Your task to perform on an android device: check out phone information Image 0: 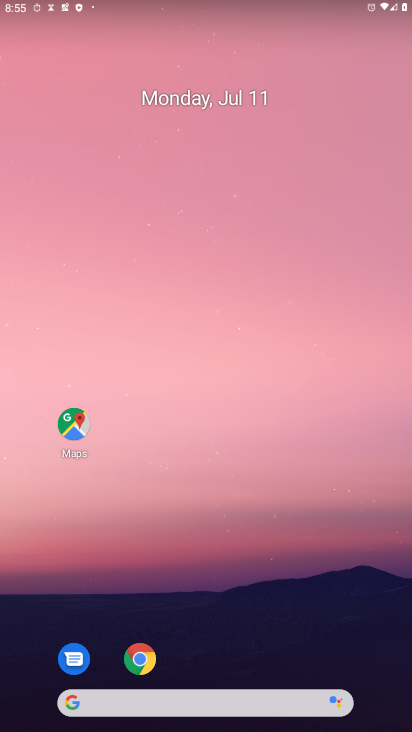
Step 0: drag from (220, 662) to (257, 84)
Your task to perform on an android device: check out phone information Image 1: 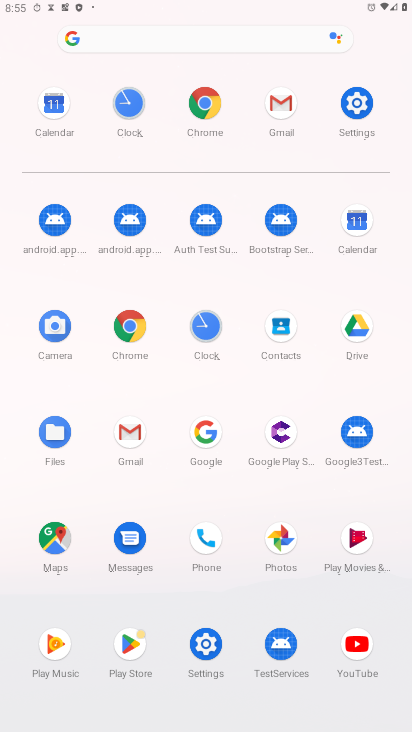
Step 1: click (199, 647)
Your task to perform on an android device: check out phone information Image 2: 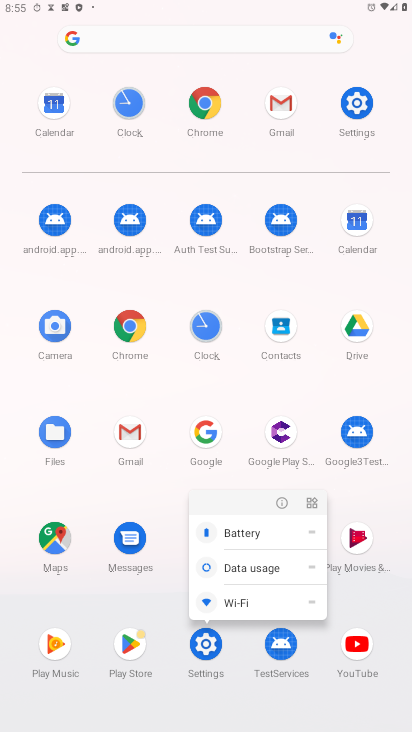
Step 2: click (279, 510)
Your task to perform on an android device: check out phone information Image 3: 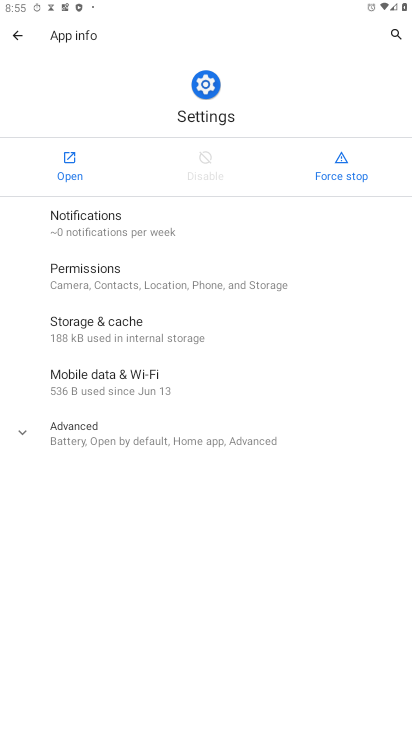
Step 3: click (76, 179)
Your task to perform on an android device: check out phone information Image 4: 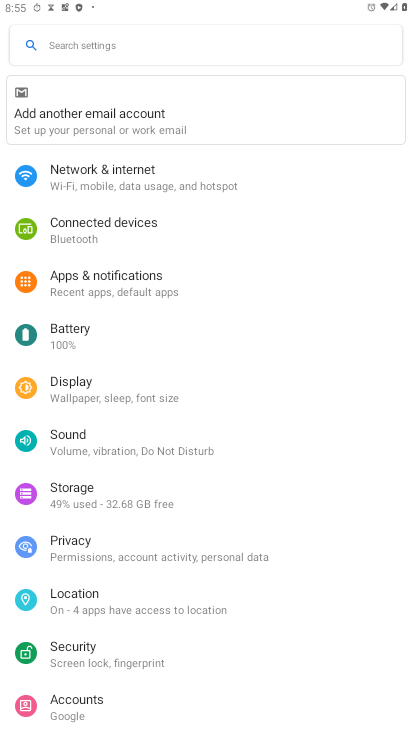
Step 4: drag from (185, 662) to (236, 94)
Your task to perform on an android device: check out phone information Image 5: 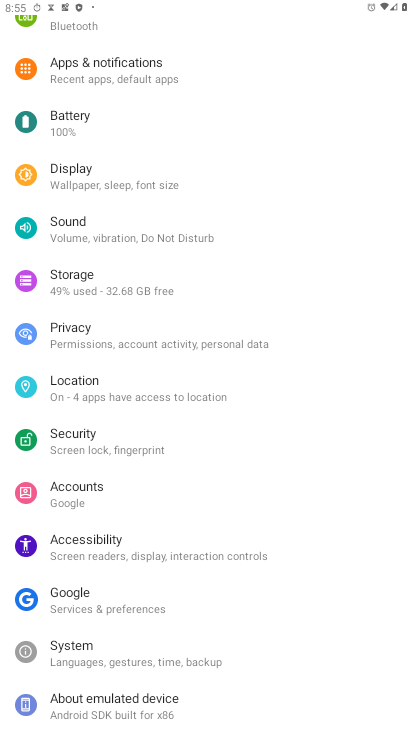
Step 5: click (156, 703)
Your task to perform on an android device: check out phone information Image 6: 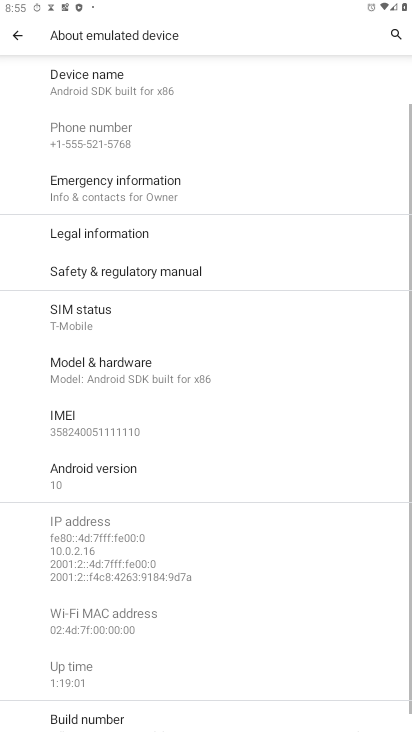
Step 6: drag from (177, 679) to (260, 179)
Your task to perform on an android device: check out phone information Image 7: 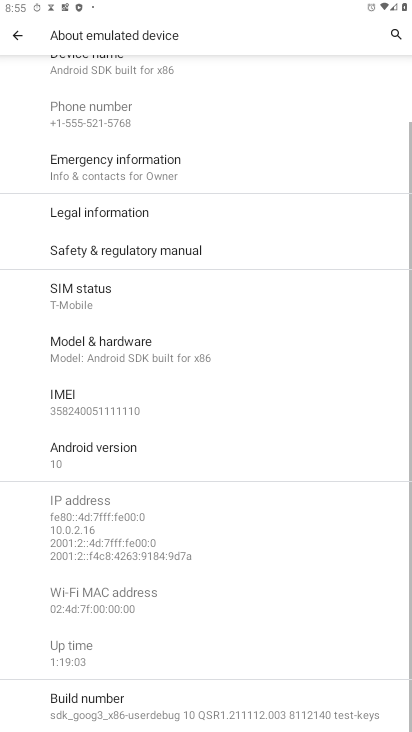
Step 7: drag from (289, 114) to (323, 693)
Your task to perform on an android device: check out phone information Image 8: 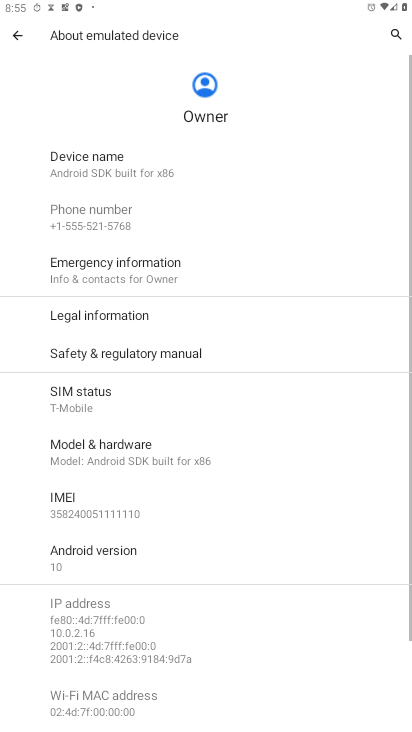
Step 8: drag from (237, 587) to (266, 297)
Your task to perform on an android device: check out phone information Image 9: 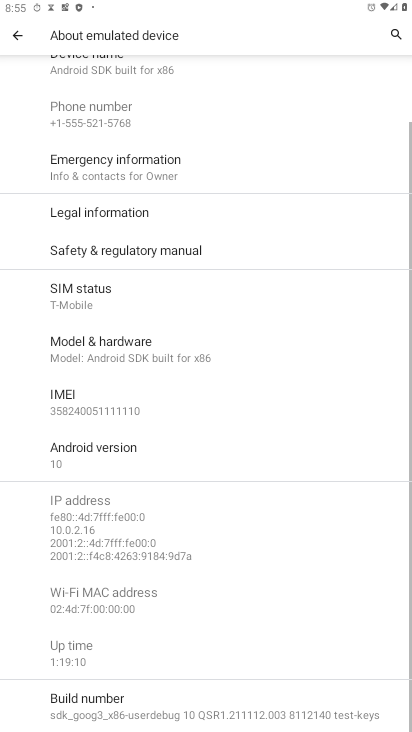
Step 9: click (157, 460)
Your task to perform on an android device: check out phone information Image 10: 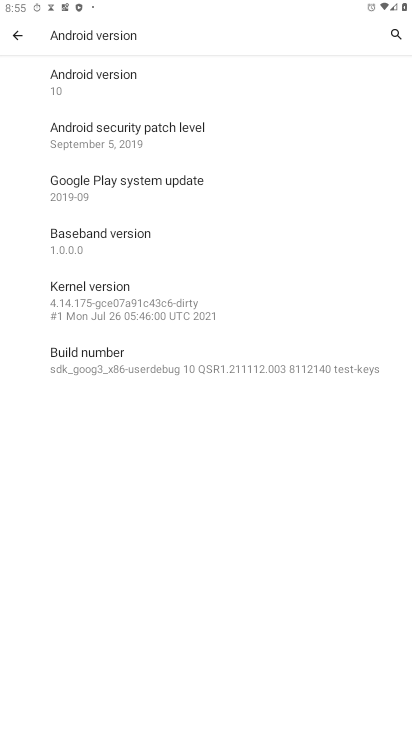
Step 10: task complete